Your task to perform on an android device: Open calendar and show me the second week of next month Image 0: 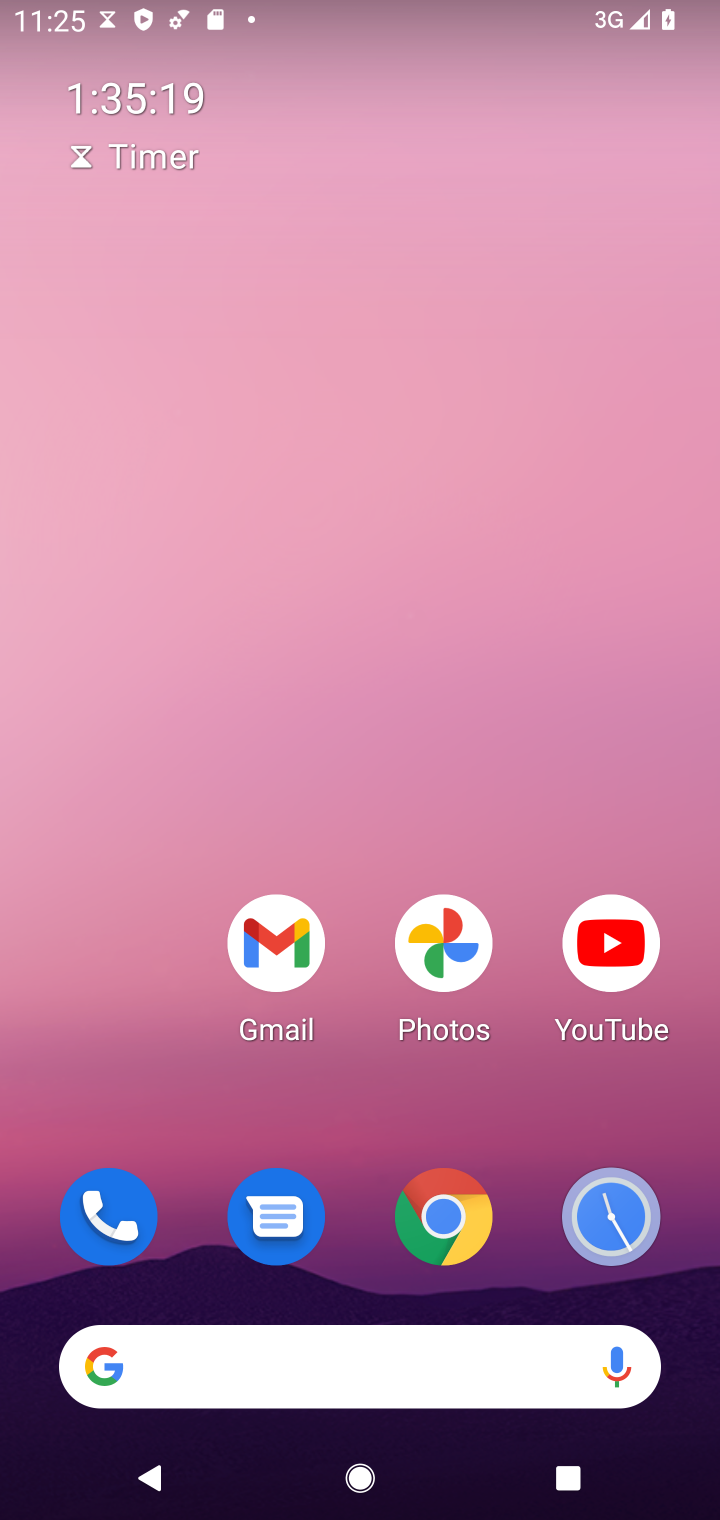
Step 0: drag from (162, 846) to (316, 7)
Your task to perform on an android device: Open calendar and show me the second week of next month Image 1: 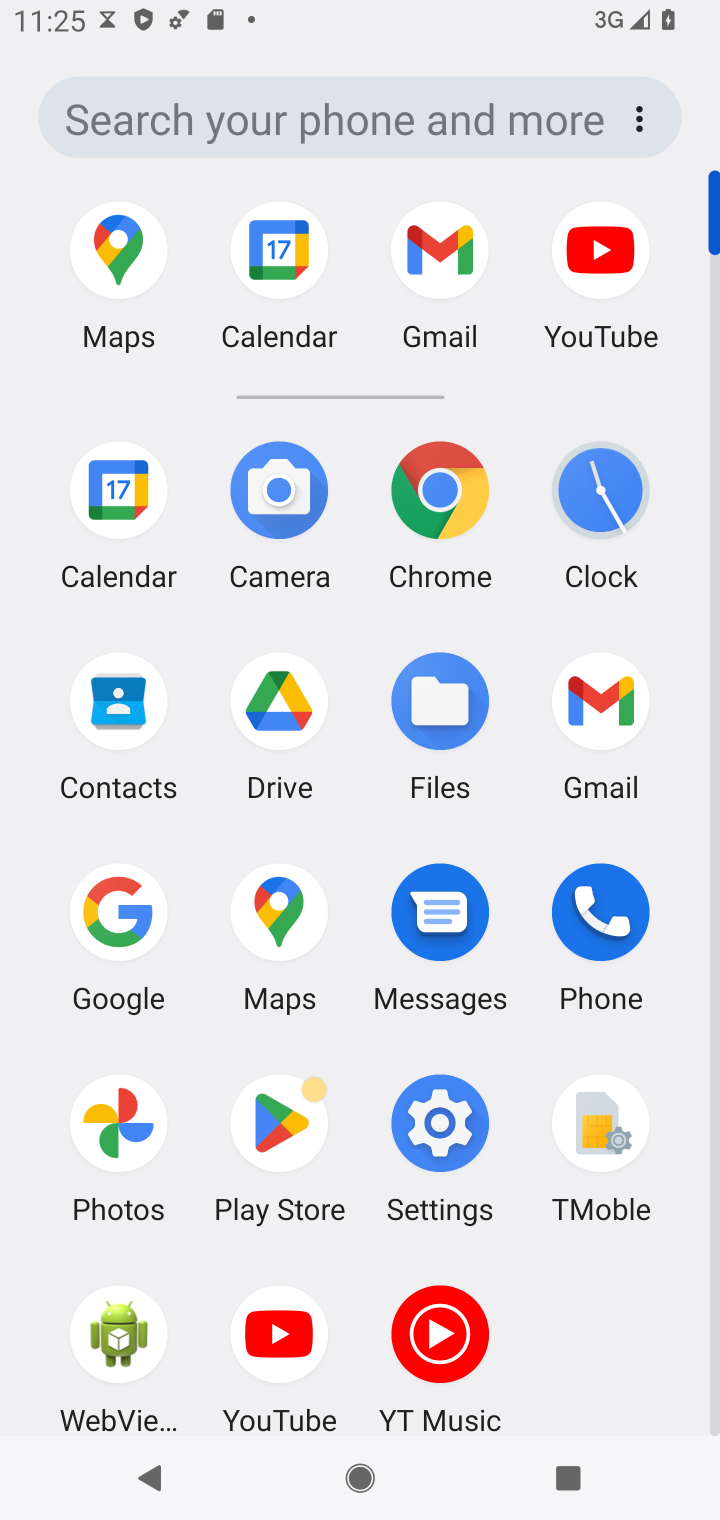
Step 1: click (291, 226)
Your task to perform on an android device: Open calendar and show me the second week of next month Image 2: 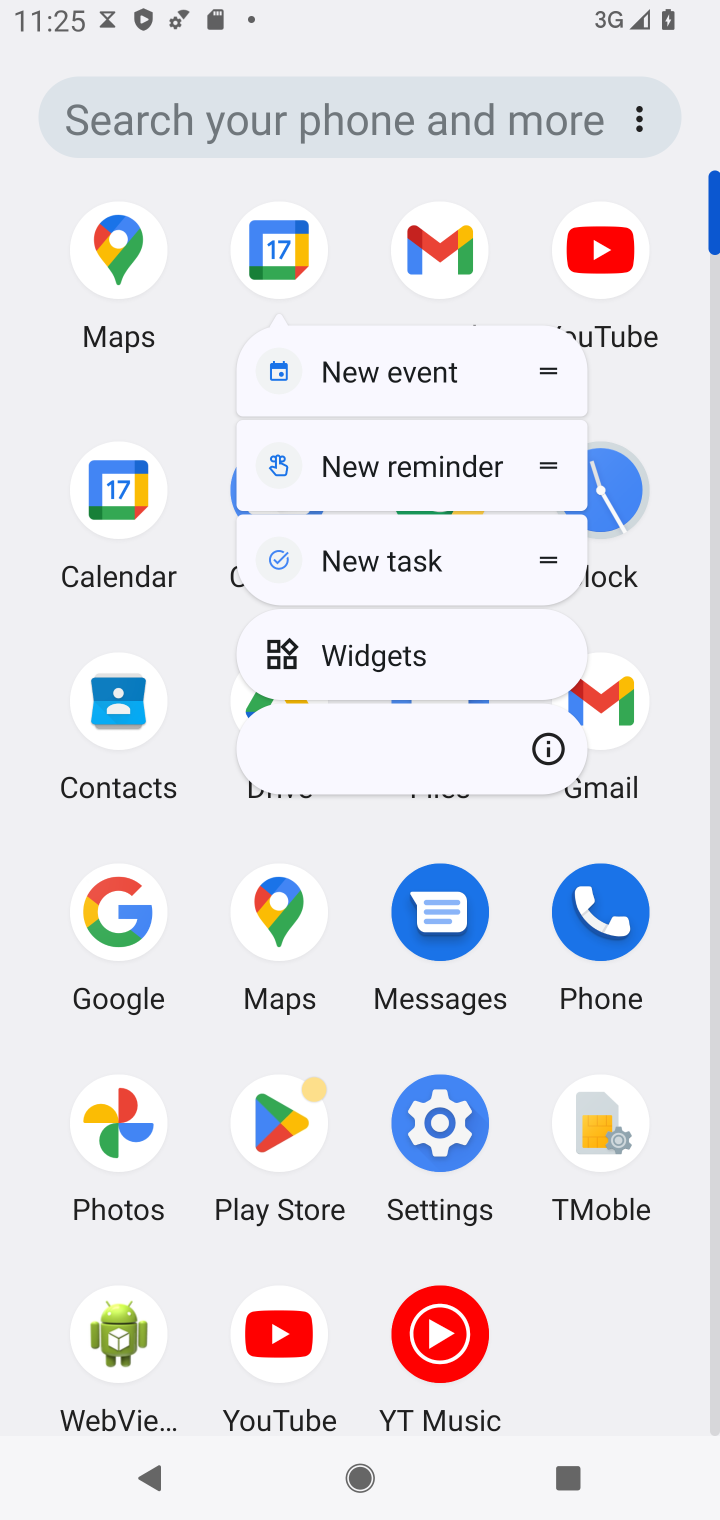
Step 2: click (285, 244)
Your task to perform on an android device: Open calendar and show me the second week of next month Image 3: 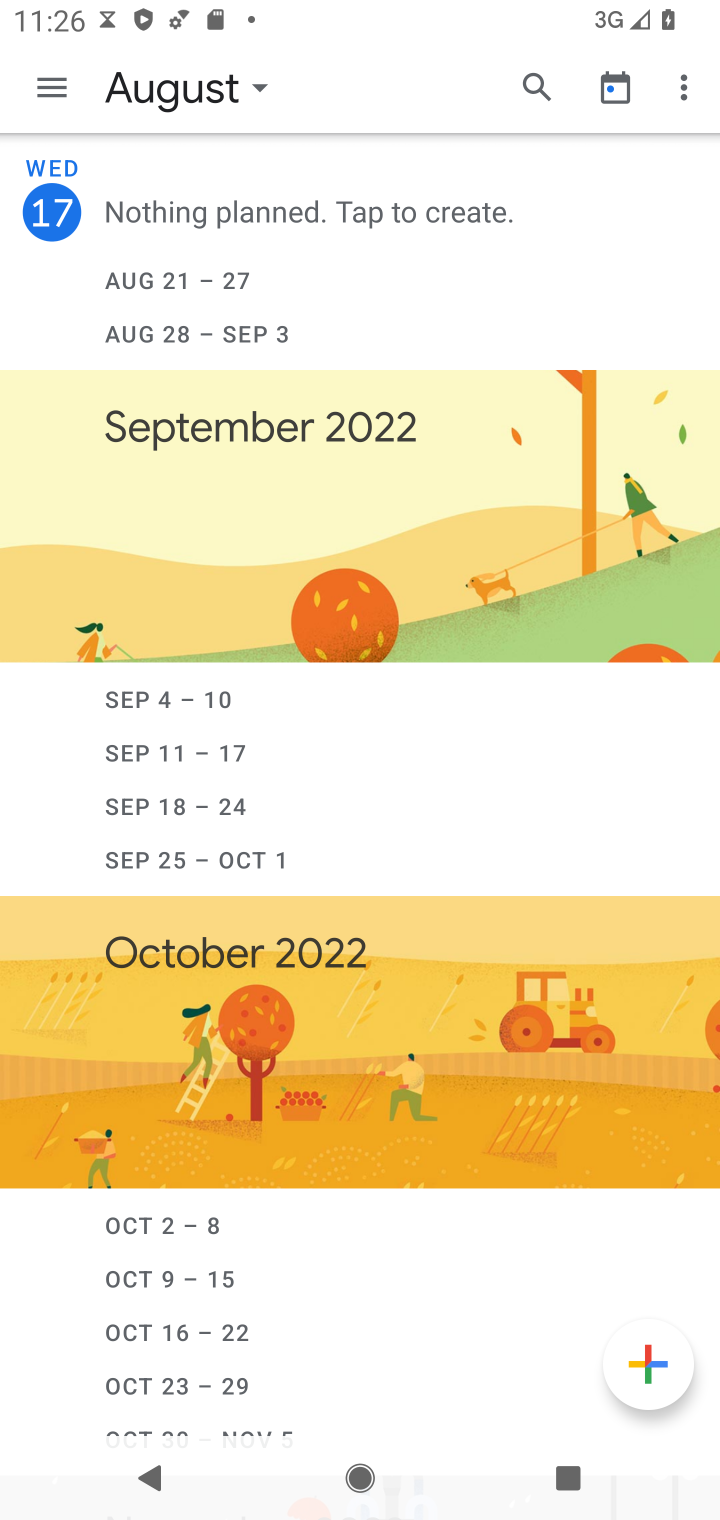
Step 3: click (253, 89)
Your task to perform on an android device: Open calendar and show me the second week of next month Image 4: 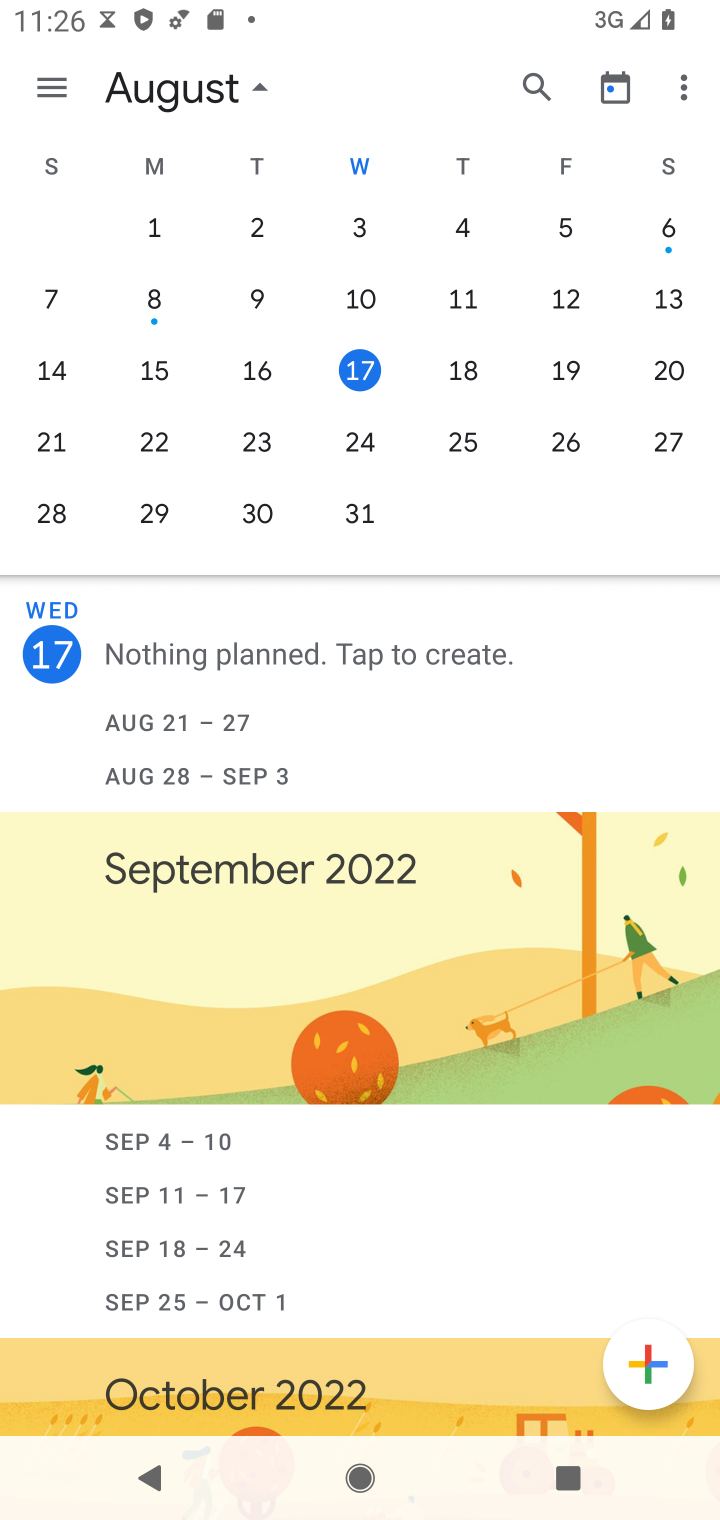
Step 4: drag from (670, 378) to (2, 385)
Your task to perform on an android device: Open calendar and show me the second week of next month Image 5: 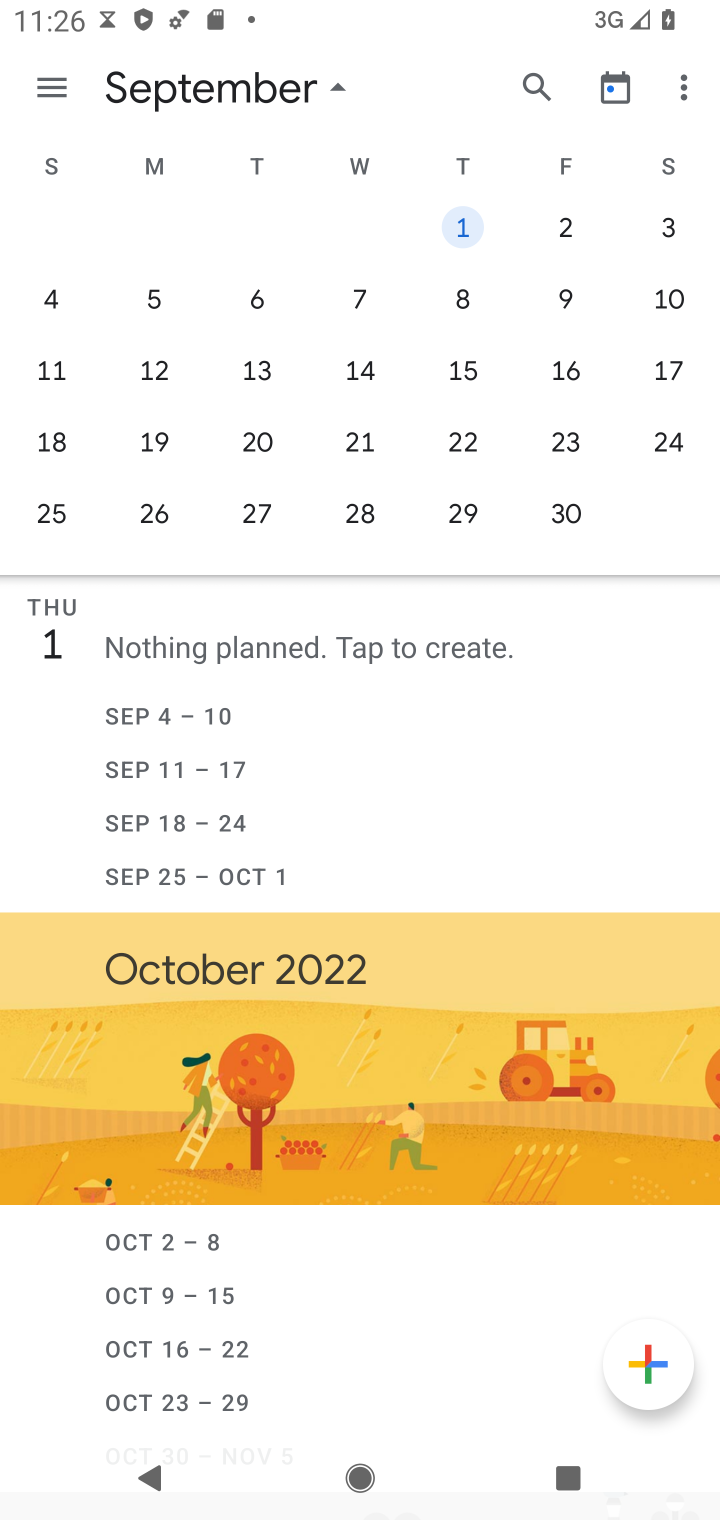
Step 5: click (152, 291)
Your task to perform on an android device: Open calendar and show me the second week of next month Image 6: 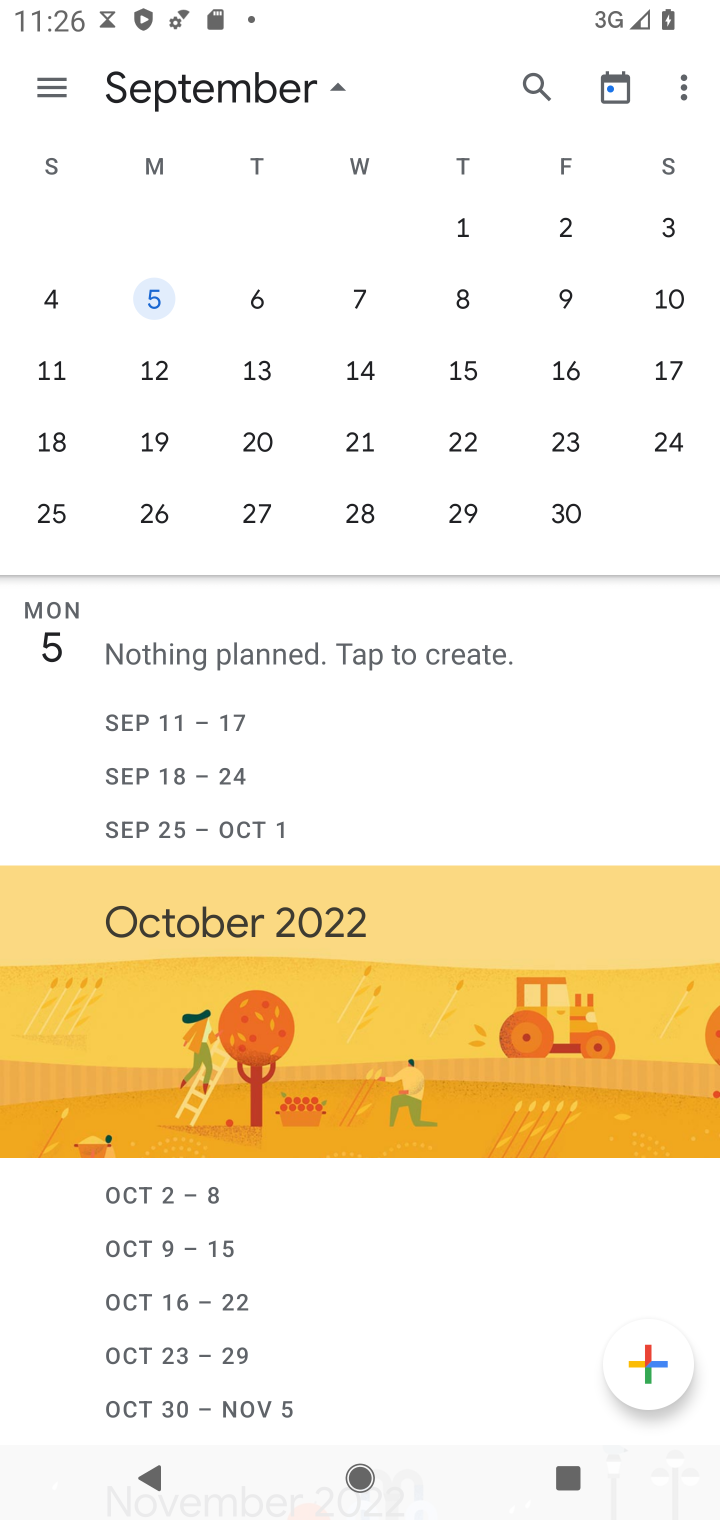
Step 6: task complete